Your task to perform on an android device: install app "Facebook Messenger" Image 0: 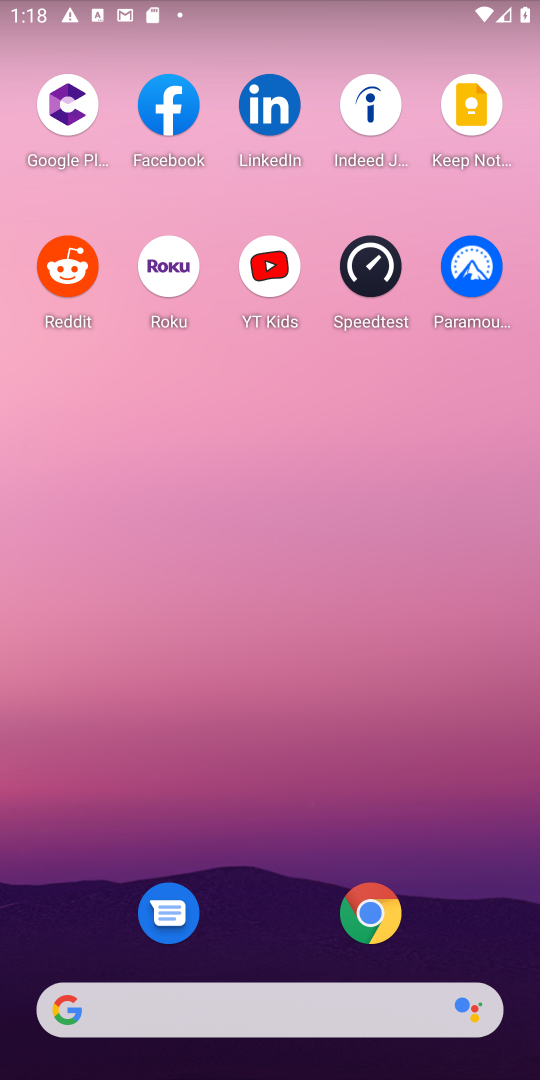
Step 0: drag from (193, 438) to (535, 498)
Your task to perform on an android device: install app "Facebook Messenger" Image 1: 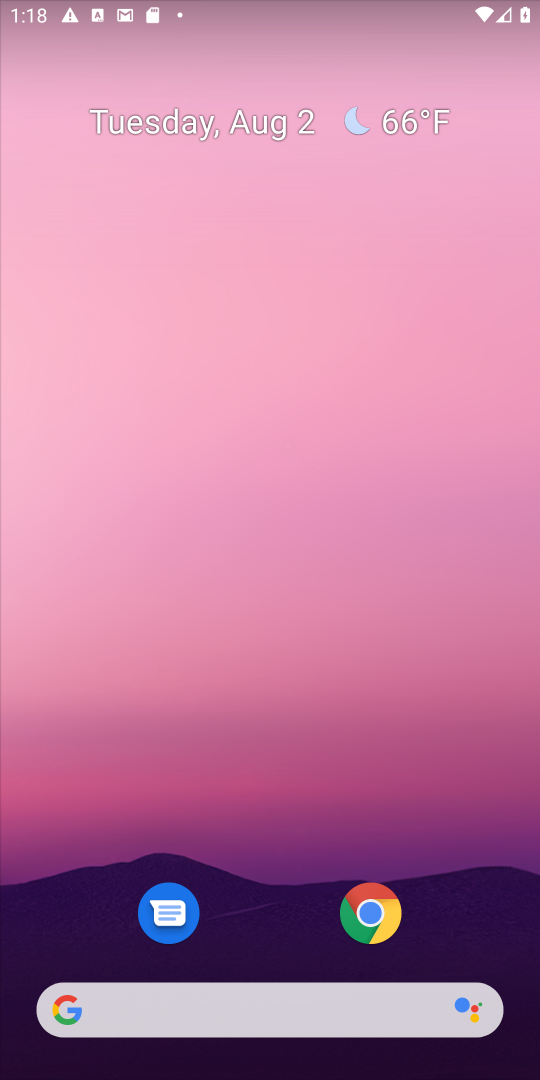
Step 1: drag from (511, 1000) to (322, 171)
Your task to perform on an android device: install app "Facebook Messenger" Image 2: 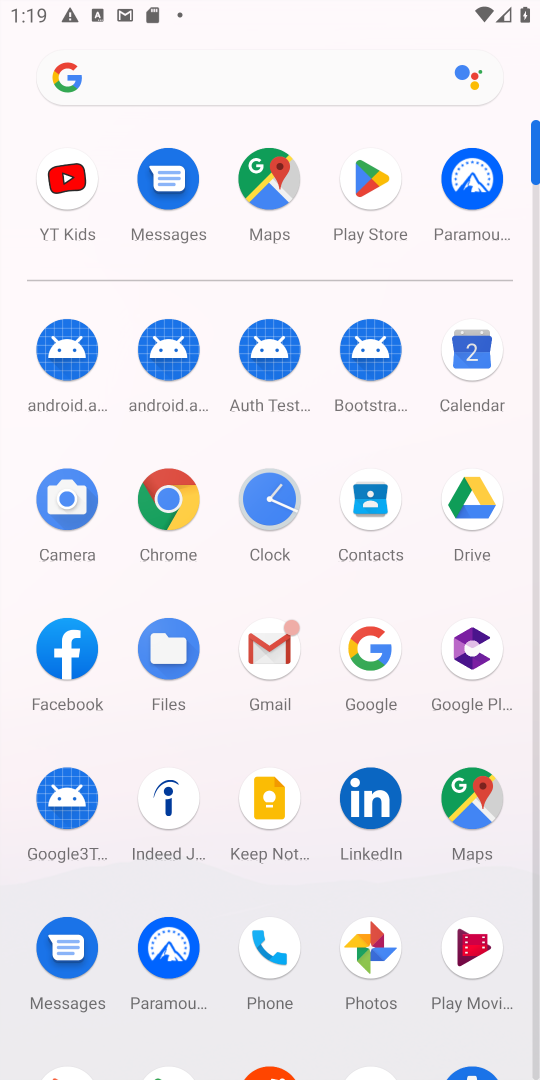
Step 2: click (371, 188)
Your task to perform on an android device: install app "Facebook Messenger" Image 3: 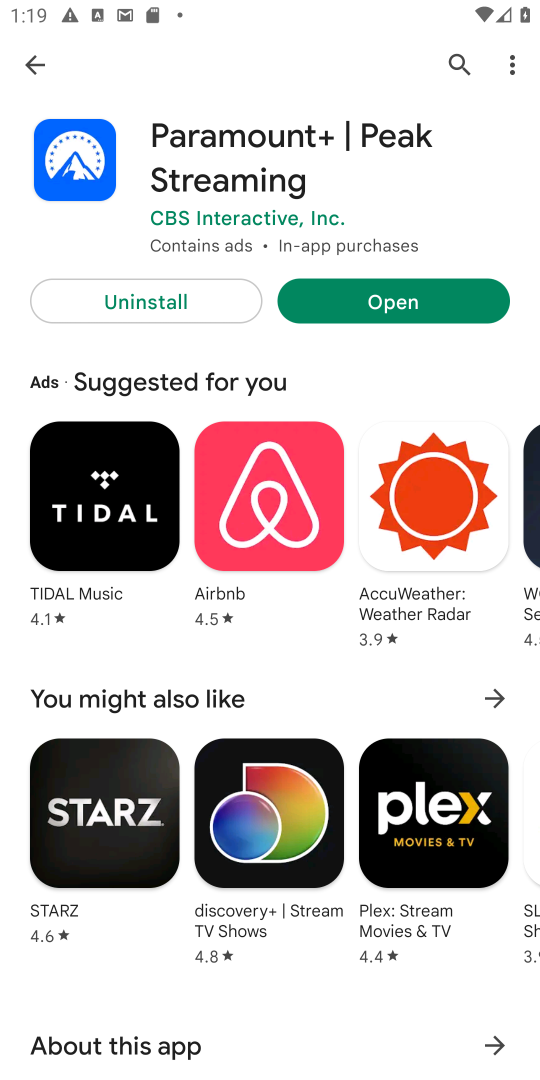
Step 3: click (461, 61)
Your task to perform on an android device: install app "Facebook Messenger" Image 4: 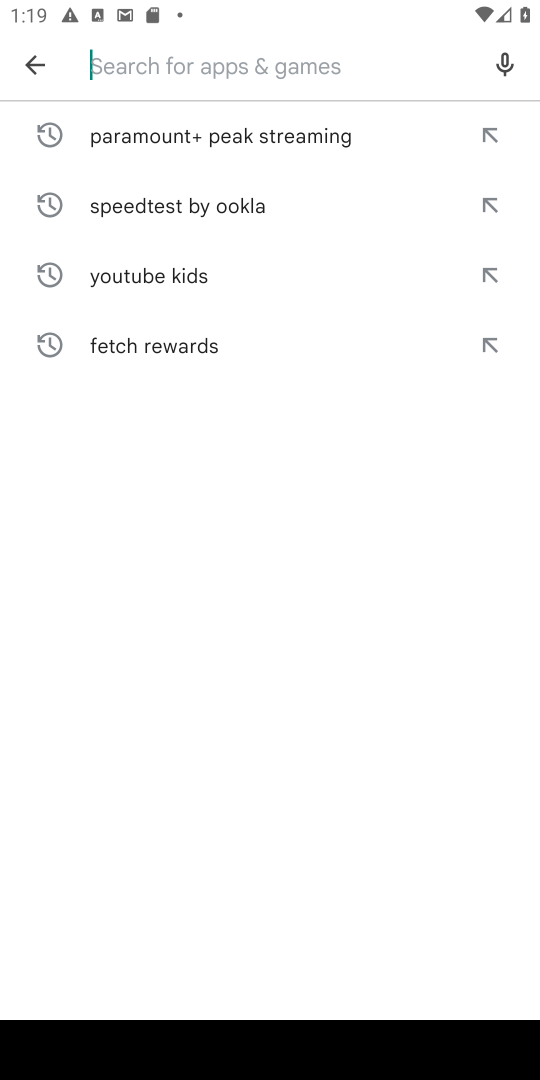
Step 4: type "Facebook Messenger"
Your task to perform on an android device: install app "Facebook Messenger" Image 5: 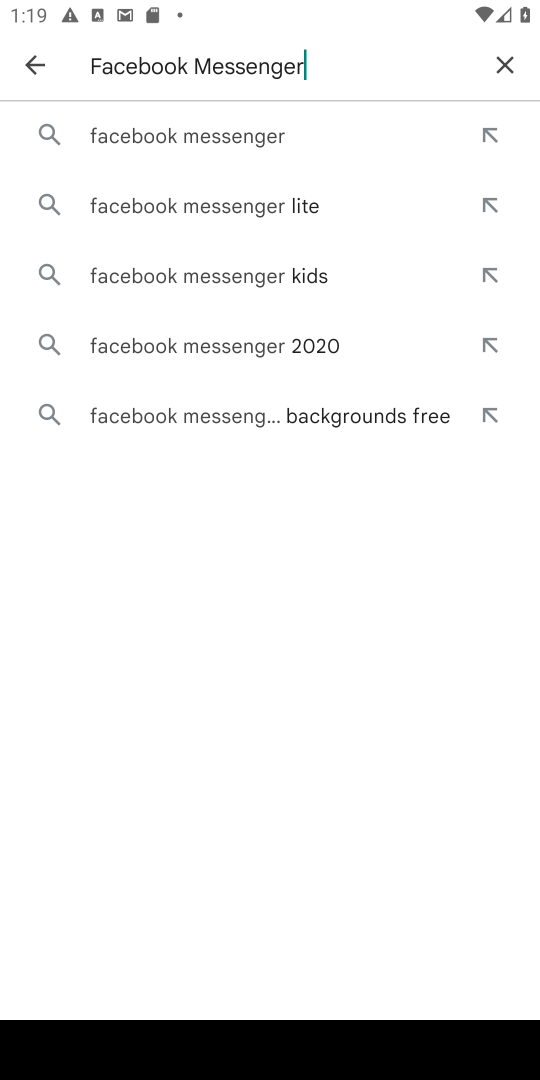
Step 5: click (184, 139)
Your task to perform on an android device: install app "Facebook Messenger" Image 6: 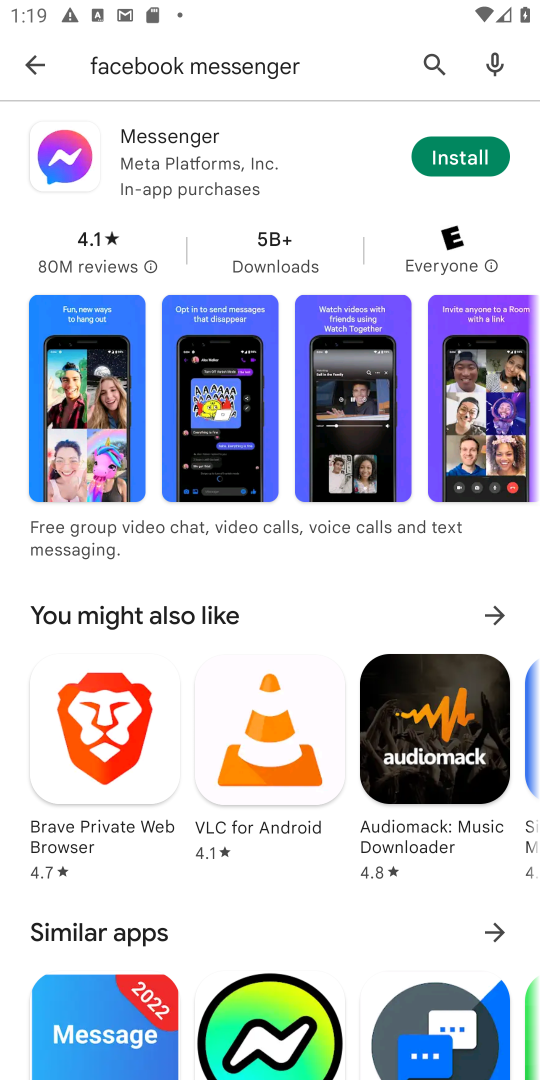
Step 6: click (440, 154)
Your task to perform on an android device: install app "Facebook Messenger" Image 7: 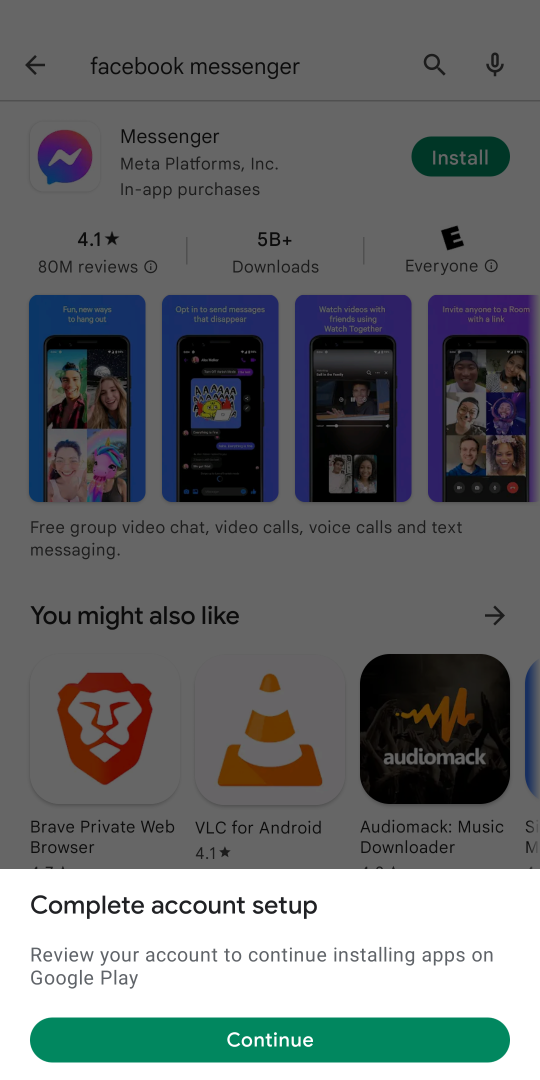
Step 7: click (285, 1028)
Your task to perform on an android device: install app "Facebook Messenger" Image 8: 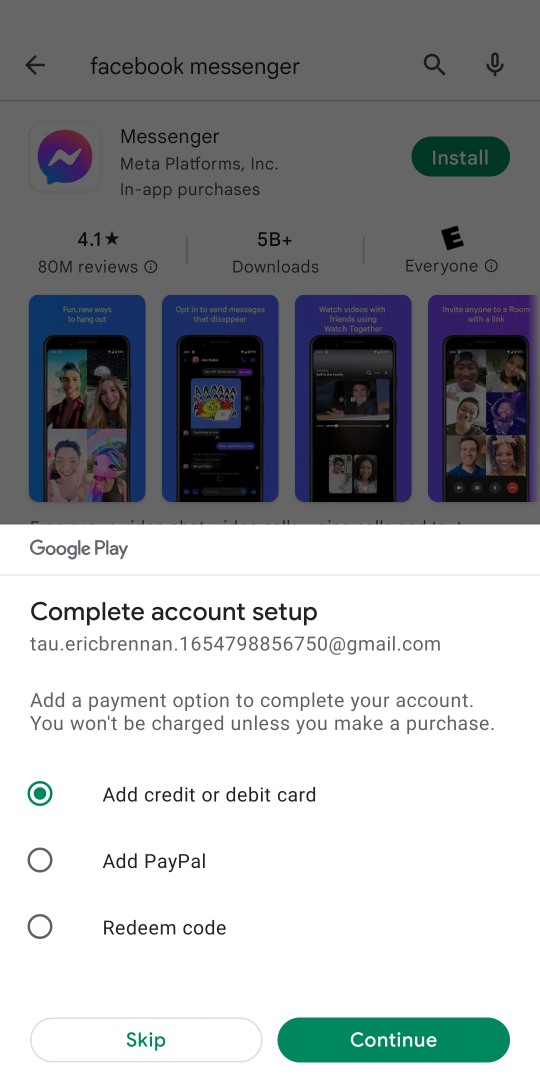
Step 8: task complete